Your task to perform on an android device: When is my next meeting? Image 0: 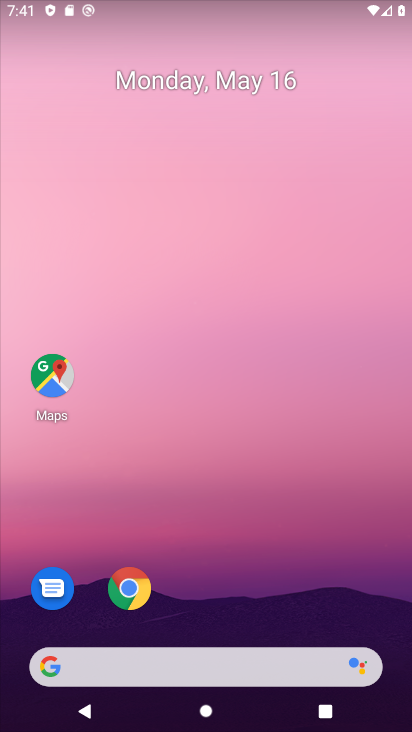
Step 0: drag from (346, 606) to (351, 117)
Your task to perform on an android device: When is my next meeting? Image 1: 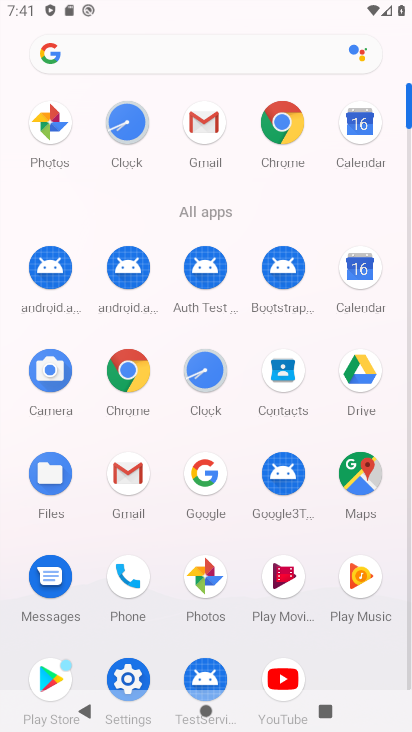
Step 1: click (360, 277)
Your task to perform on an android device: When is my next meeting? Image 2: 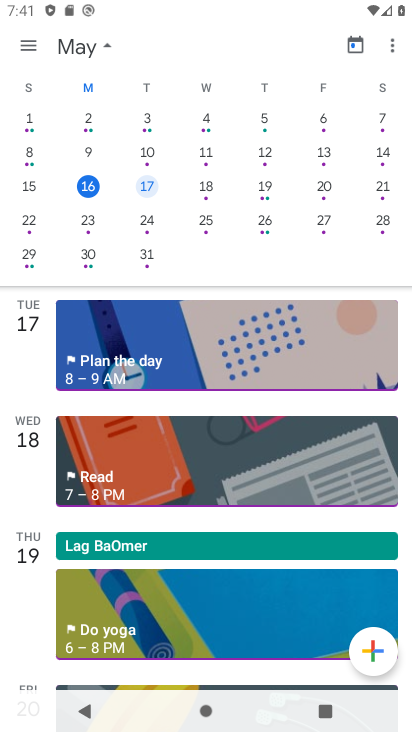
Step 2: click (226, 346)
Your task to perform on an android device: When is my next meeting? Image 3: 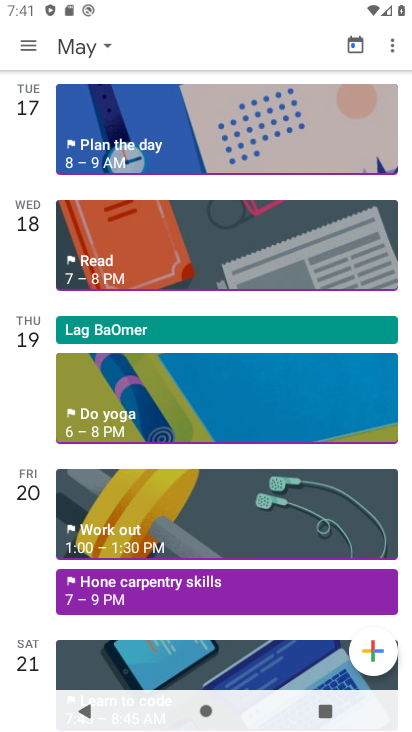
Step 3: click (206, 128)
Your task to perform on an android device: When is my next meeting? Image 4: 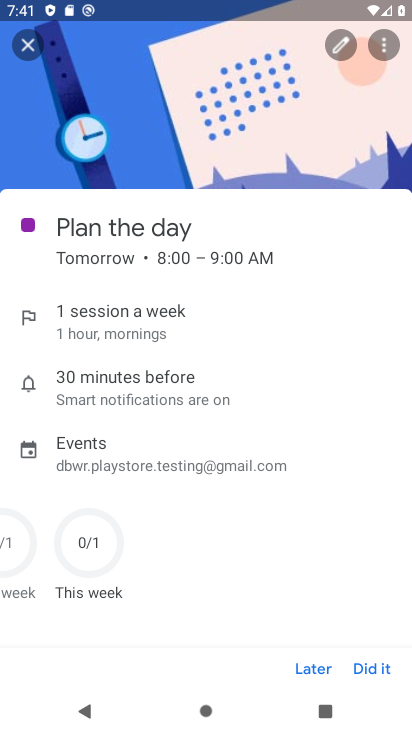
Step 4: task complete